Your task to perform on an android device: Show the shopping cart on newegg.com. Add "bose soundlink mini" to the cart on newegg.com Image 0: 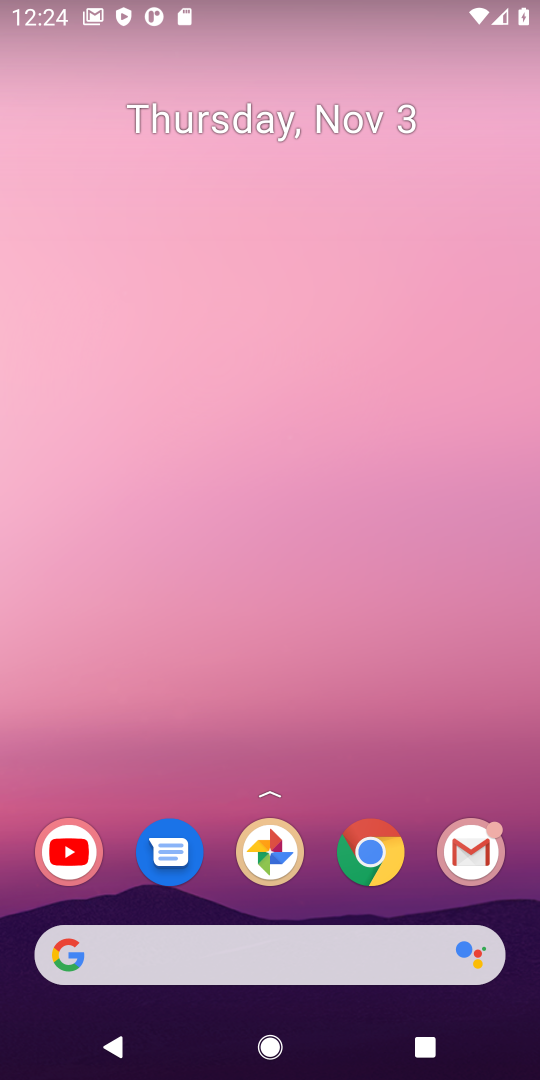
Step 0: click (360, 857)
Your task to perform on an android device: Show the shopping cart on newegg.com. Add "bose soundlink mini" to the cart on newegg.com Image 1: 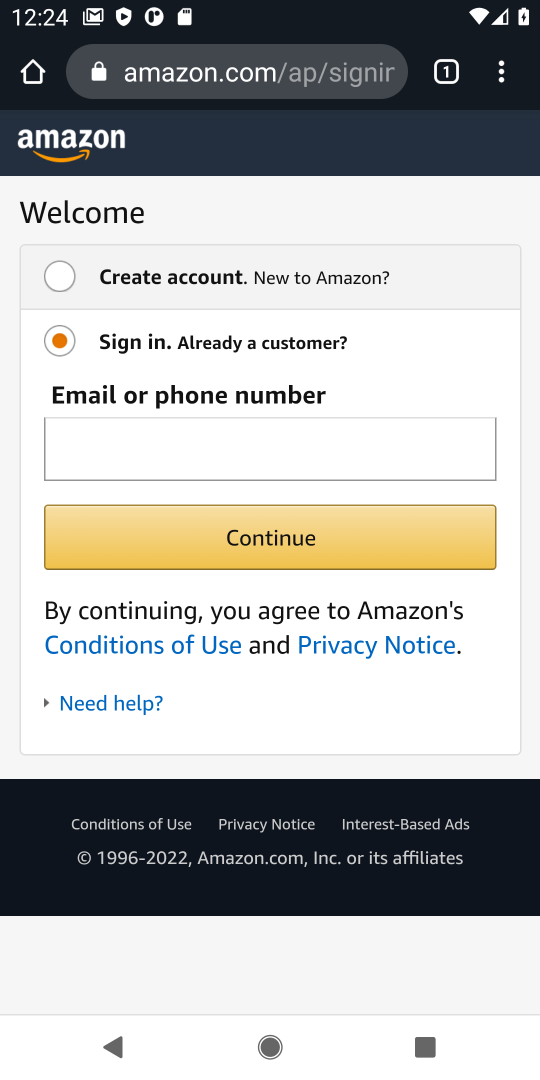
Step 1: click (264, 81)
Your task to perform on an android device: Show the shopping cart on newegg.com. Add "bose soundlink mini" to the cart on newegg.com Image 2: 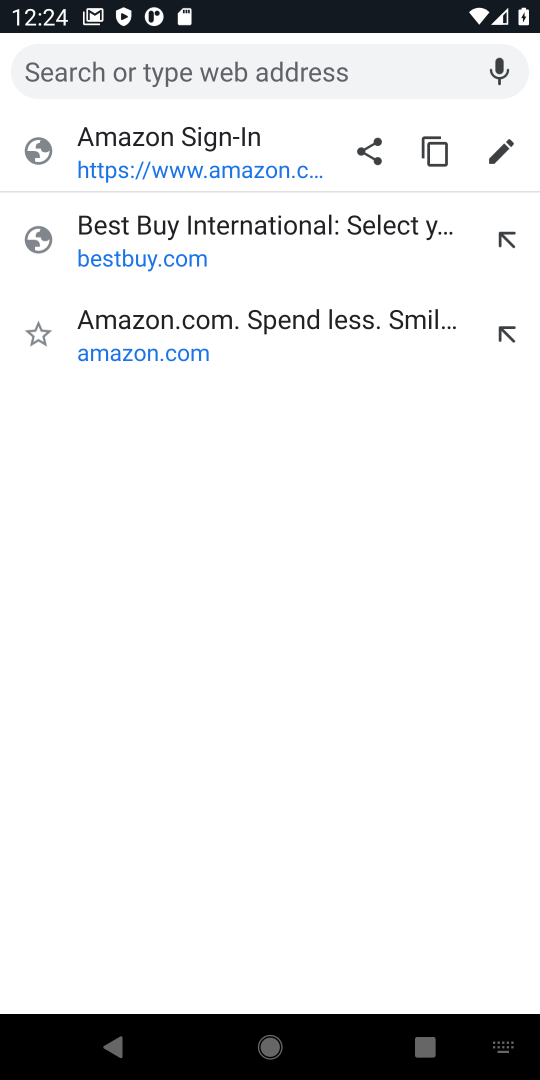
Step 2: type "newegg.com"
Your task to perform on an android device: Show the shopping cart on newegg.com. Add "bose soundlink mini" to the cart on newegg.com Image 3: 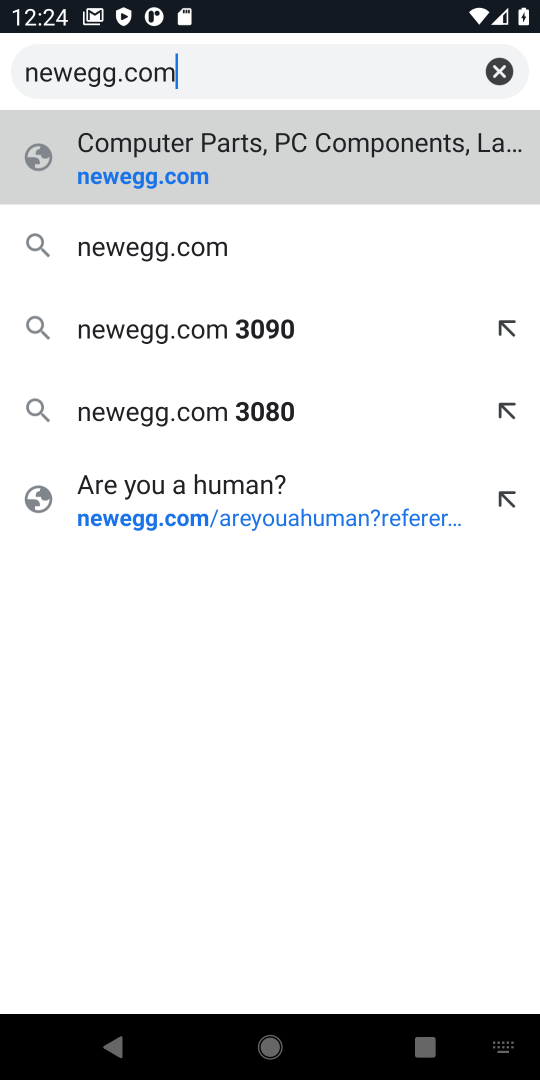
Step 3: click (181, 190)
Your task to perform on an android device: Show the shopping cart on newegg.com. Add "bose soundlink mini" to the cart on newegg.com Image 4: 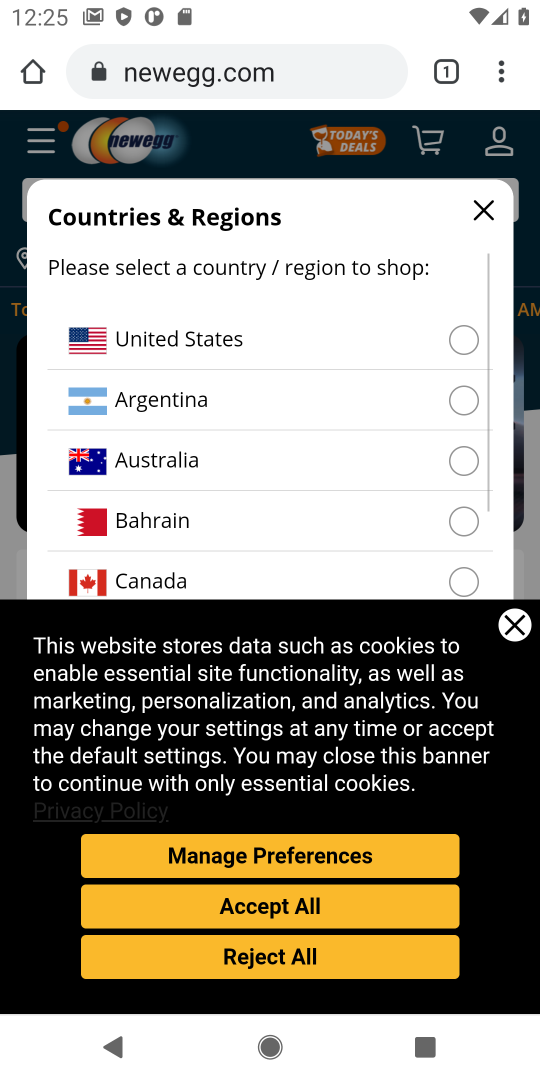
Step 4: click (463, 342)
Your task to perform on an android device: Show the shopping cart on newegg.com. Add "bose soundlink mini" to the cart on newegg.com Image 5: 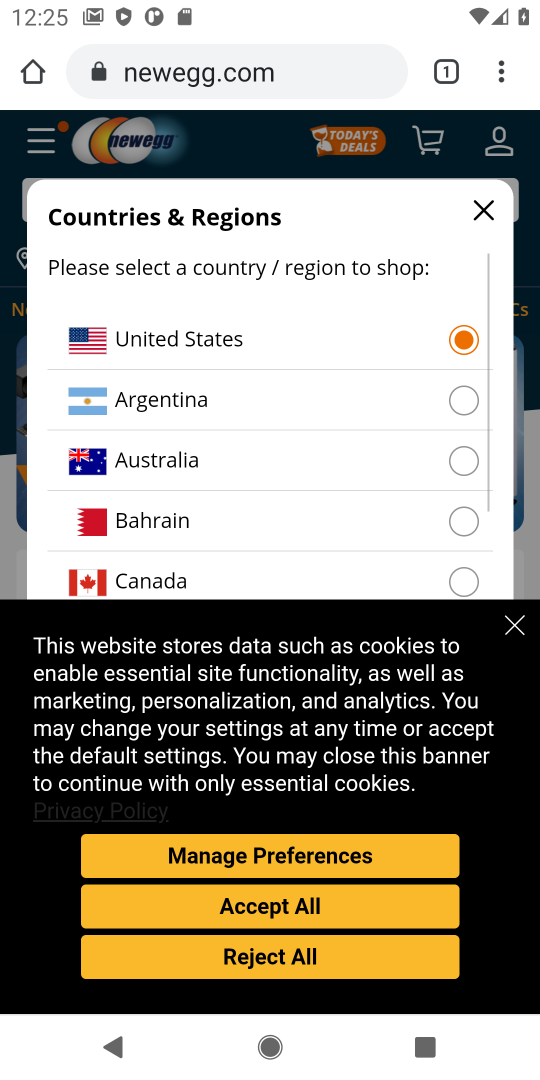
Step 5: click (481, 216)
Your task to perform on an android device: Show the shopping cart on newegg.com. Add "bose soundlink mini" to the cart on newegg.com Image 6: 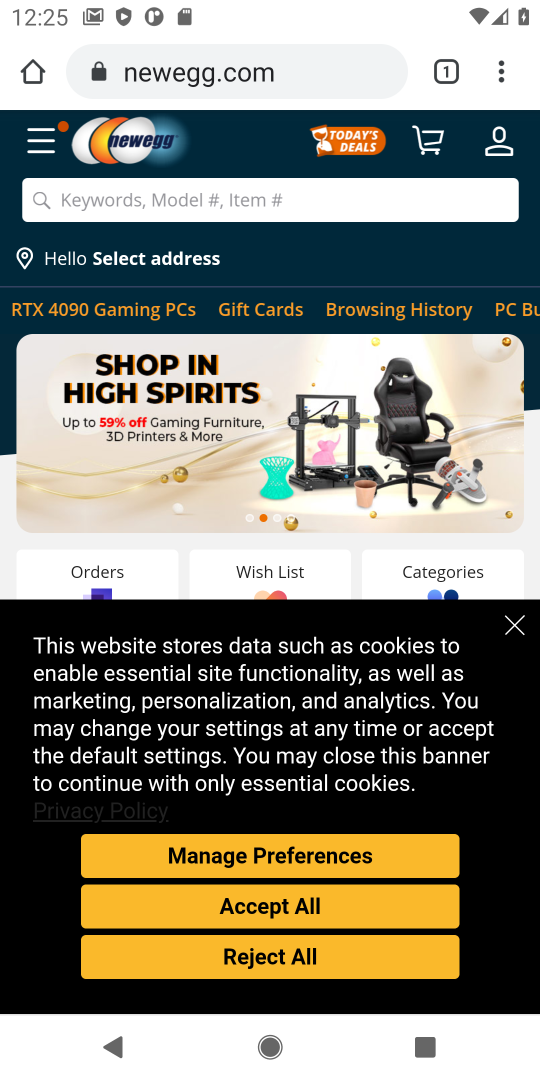
Step 6: click (433, 142)
Your task to perform on an android device: Show the shopping cart on newegg.com. Add "bose soundlink mini" to the cart on newegg.com Image 7: 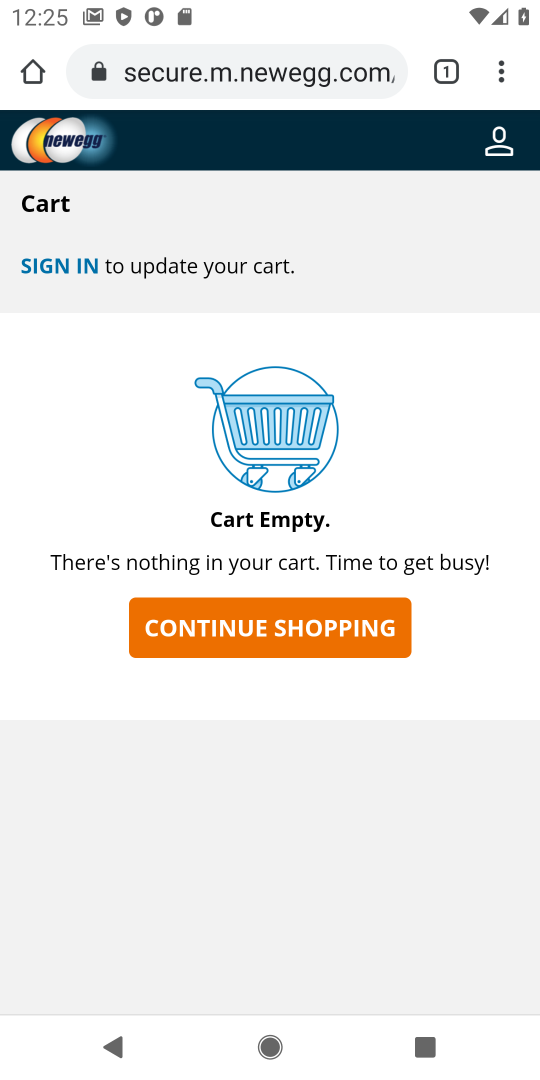
Step 7: press back button
Your task to perform on an android device: Show the shopping cart on newegg.com. Add "bose soundlink mini" to the cart on newegg.com Image 8: 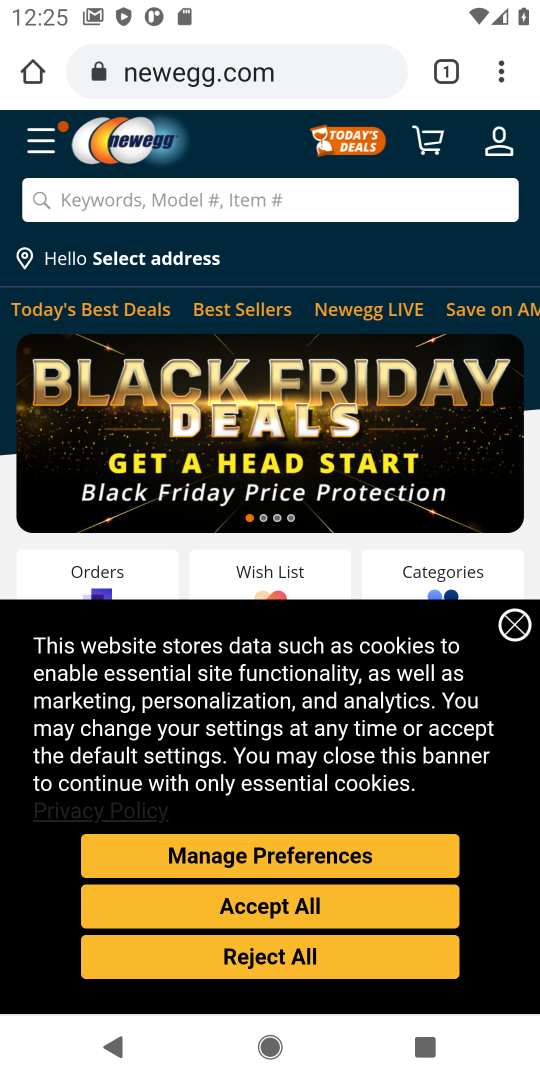
Step 8: click (228, 215)
Your task to perform on an android device: Show the shopping cart on newegg.com. Add "bose soundlink mini" to the cart on newegg.com Image 9: 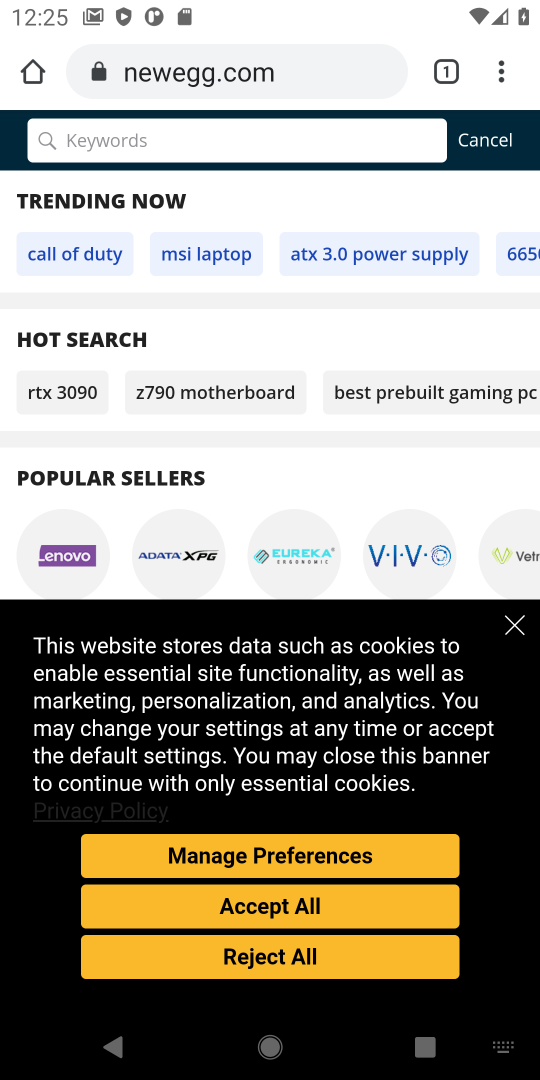
Step 9: type "bose soundlink mini"
Your task to perform on an android device: Show the shopping cart on newegg.com. Add "bose soundlink mini" to the cart on newegg.com Image 10: 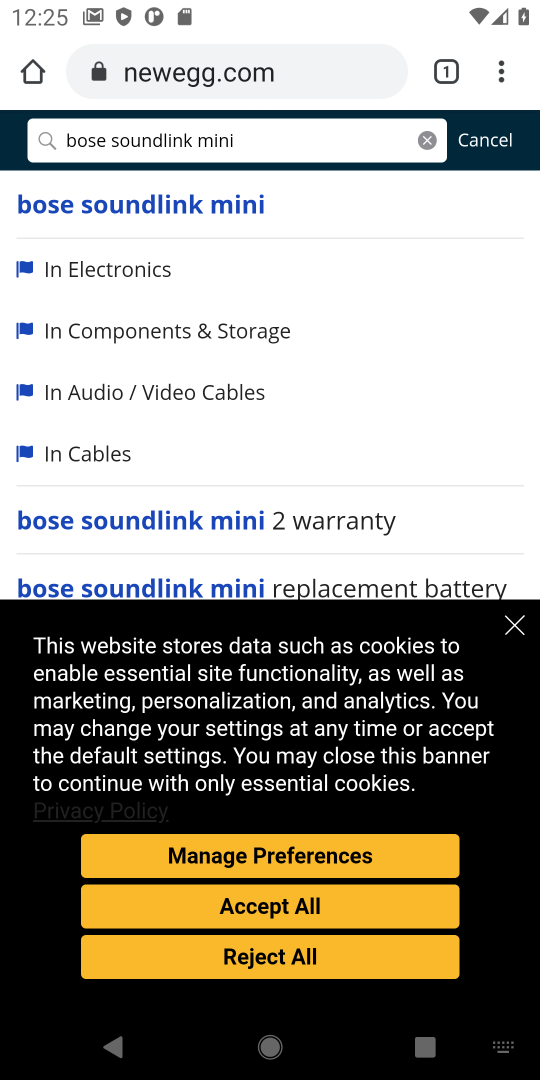
Step 10: click (139, 212)
Your task to perform on an android device: Show the shopping cart on newegg.com. Add "bose soundlink mini" to the cart on newegg.com Image 11: 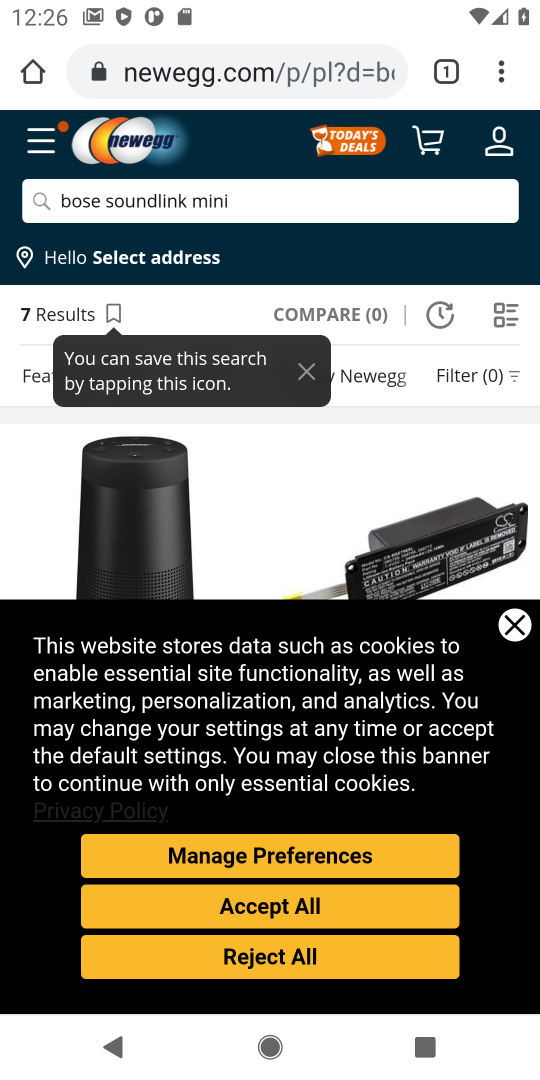
Step 11: click (517, 627)
Your task to perform on an android device: Show the shopping cart on newegg.com. Add "bose soundlink mini" to the cart on newegg.com Image 12: 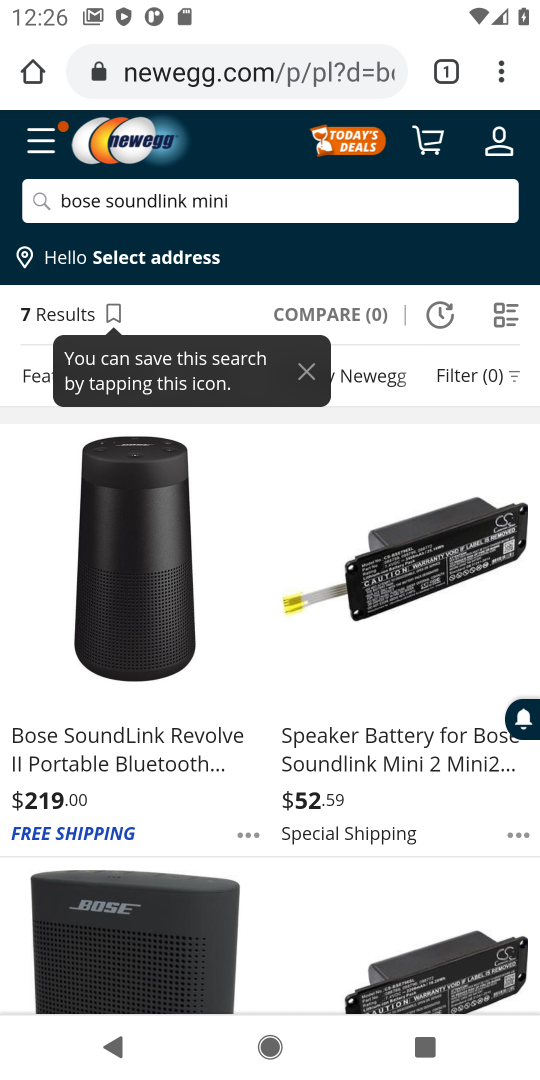
Step 12: drag from (247, 732) to (284, 444)
Your task to perform on an android device: Show the shopping cart on newegg.com. Add "bose soundlink mini" to the cart on newegg.com Image 13: 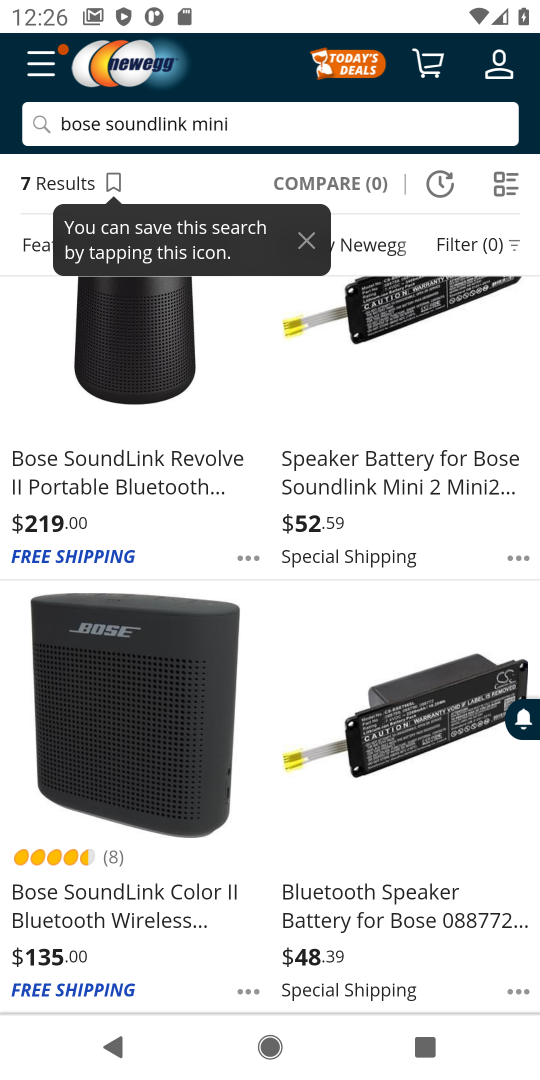
Step 13: drag from (240, 700) to (273, 451)
Your task to perform on an android device: Show the shopping cart on newegg.com. Add "bose soundlink mini" to the cart on newegg.com Image 14: 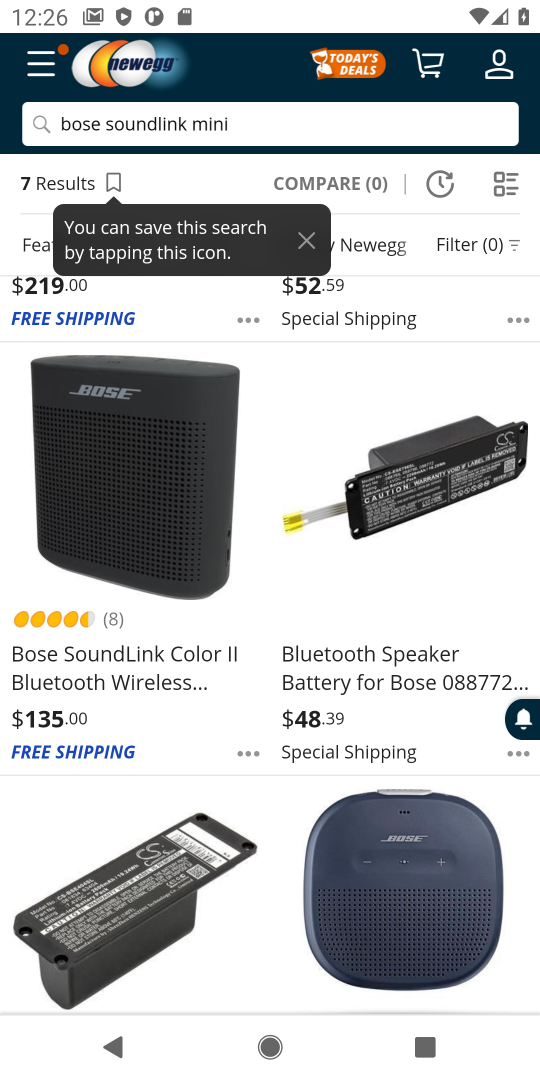
Step 14: drag from (242, 781) to (261, 418)
Your task to perform on an android device: Show the shopping cart on newegg.com. Add "bose soundlink mini" to the cart on newegg.com Image 15: 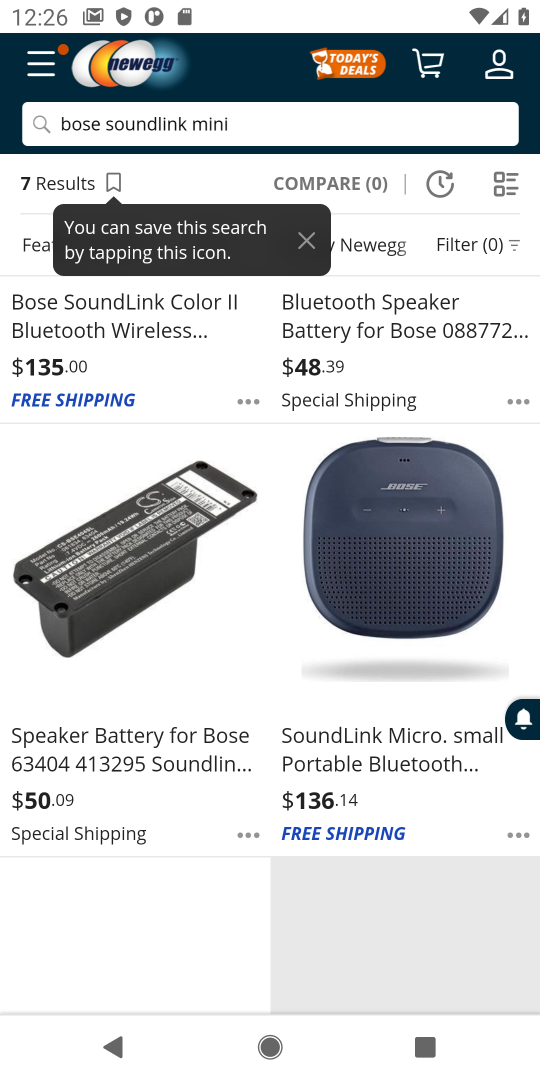
Step 15: drag from (230, 756) to (263, 417)
Your task to perform on an android device: Show the shopping cart on newegg.com. Add "bose soundlink mini" to the cart on newegg.com Image 16: 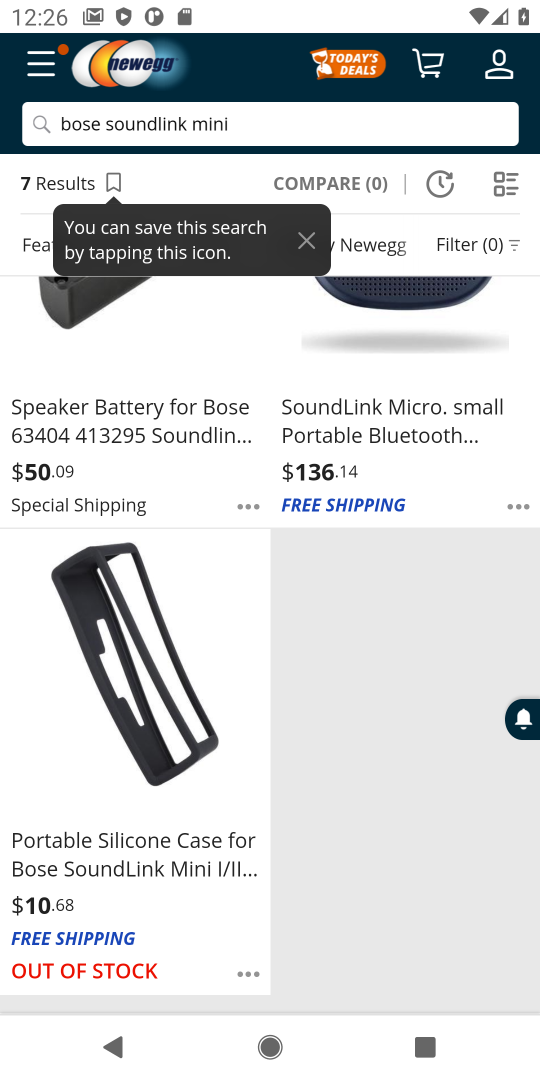
Step 16: click (140, 872)
Your task to perform on an android device: Show the shopping cart on newegg.com. Add "bose soundlink mini" to the cart on newegg.com Image 17: 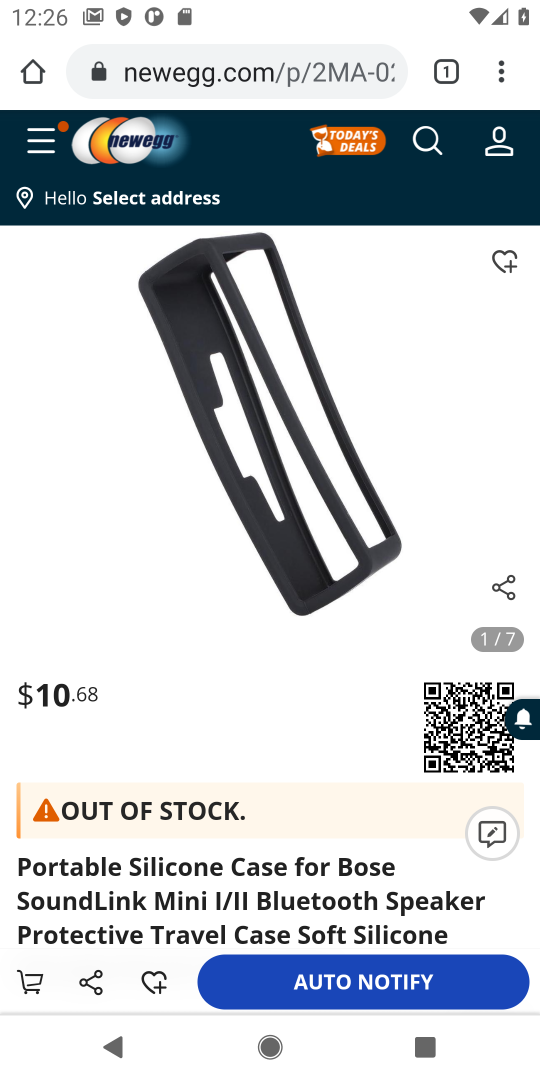
Step 17: task complete